Your task to perform on an android device: Search for the best websites on the internet Image 0: 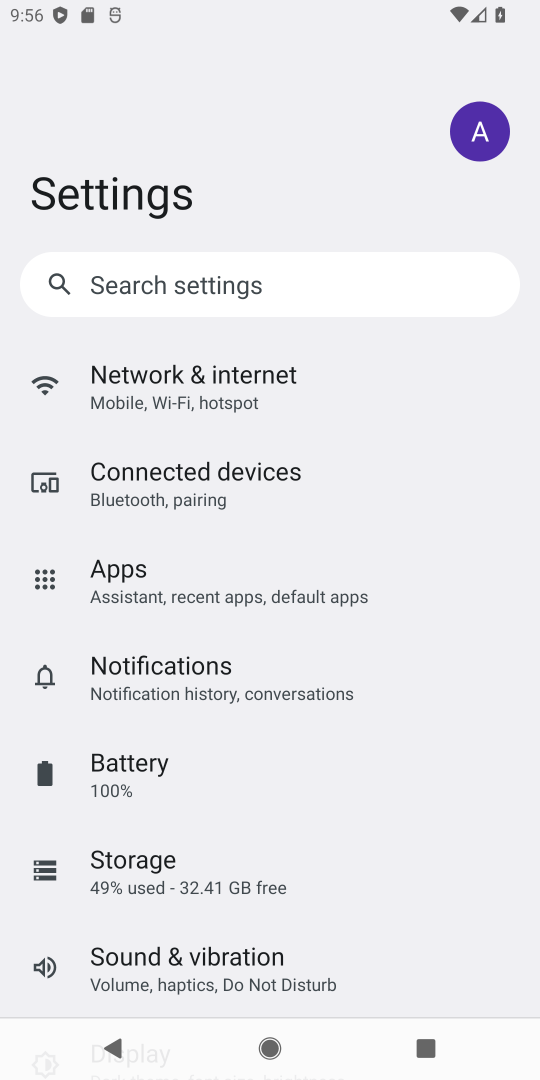
Step 0: press home button
Your task to perform on an android device: Search for the best websites on the internet Image 1: 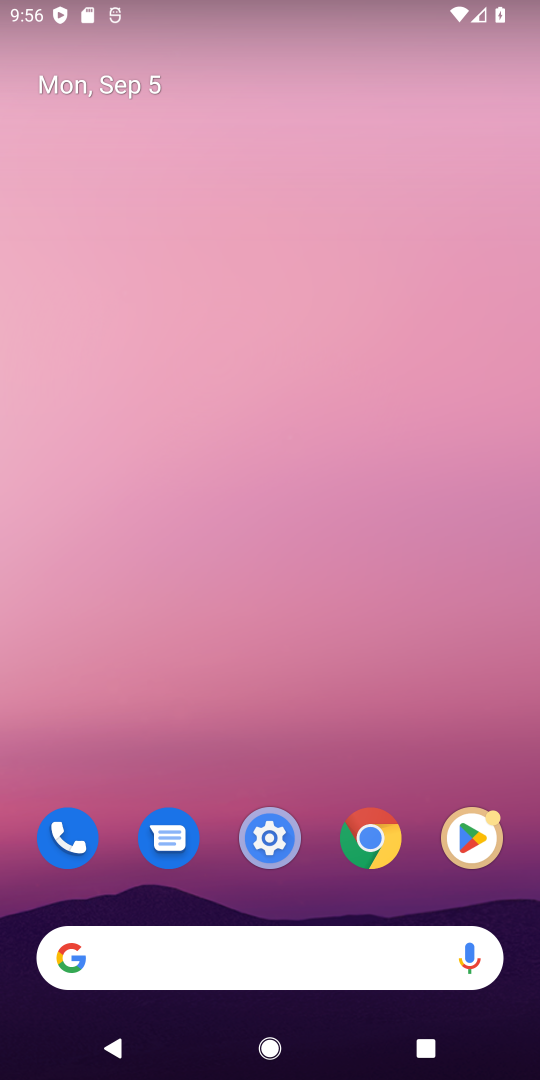
Step 1: click (278, 942)
Your task to perform on an android device: Search for the best websites on the internet Image 2: 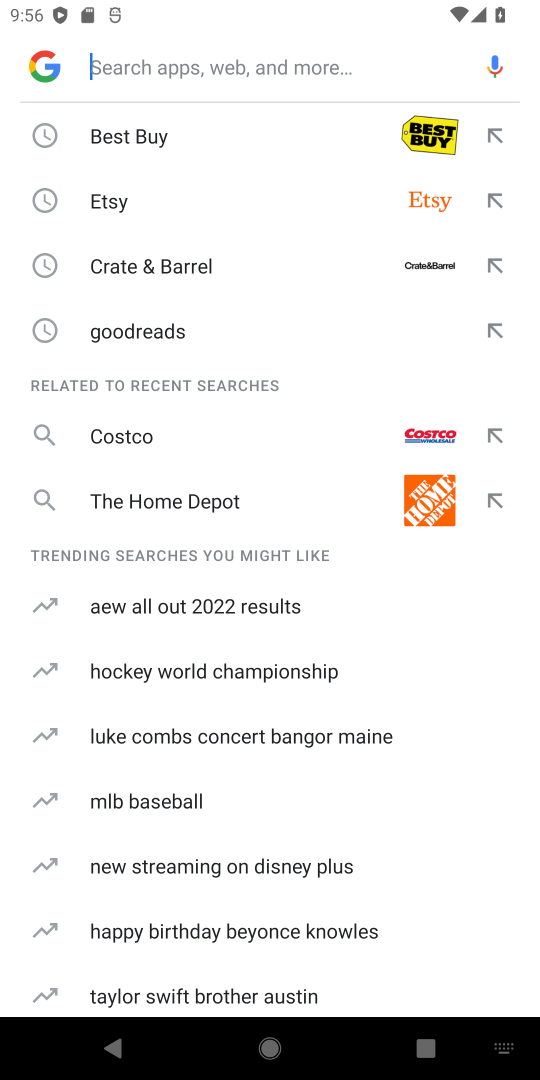
Step 2: type "best websites on the internet"
Your task to perform on an android device: Search for the best websites on the internet Image 3: 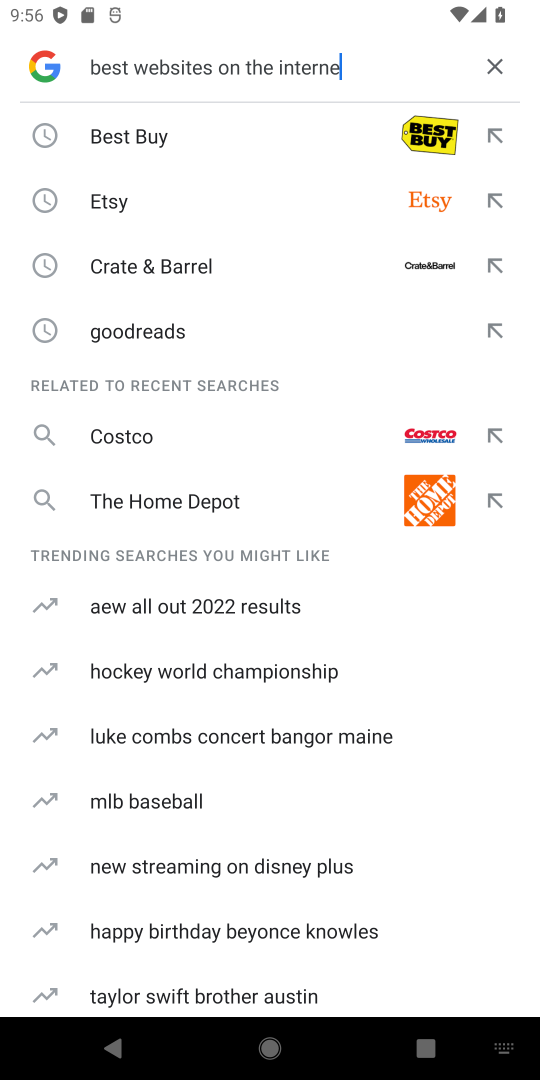
Step 3: type ""
Your task to perform on an android device: Search for the best websites on the internet Image 4: 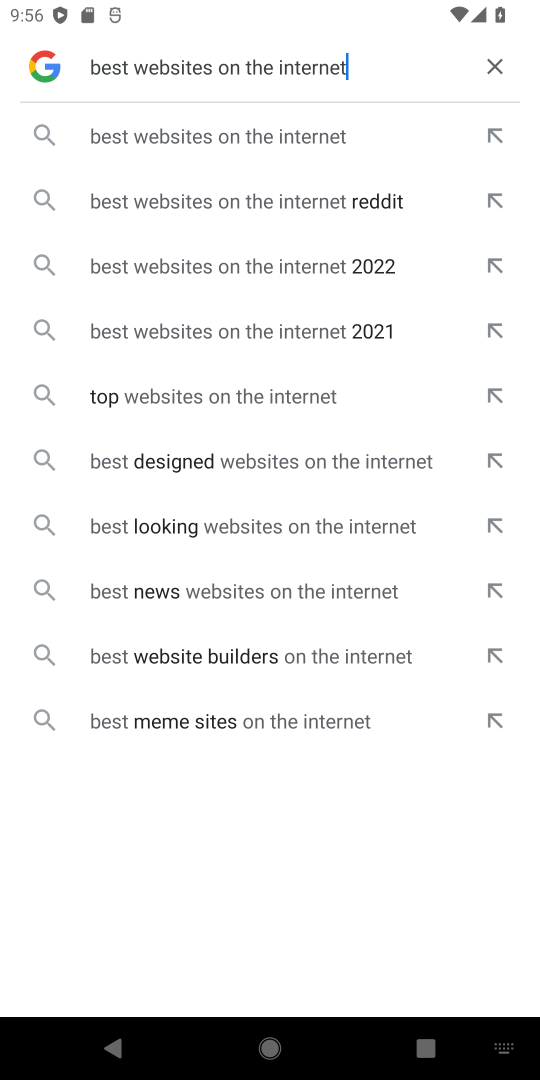
Step 4: click (204, 146)
Your task to perform on an android device: Search for the best websites on the internet Image 5: 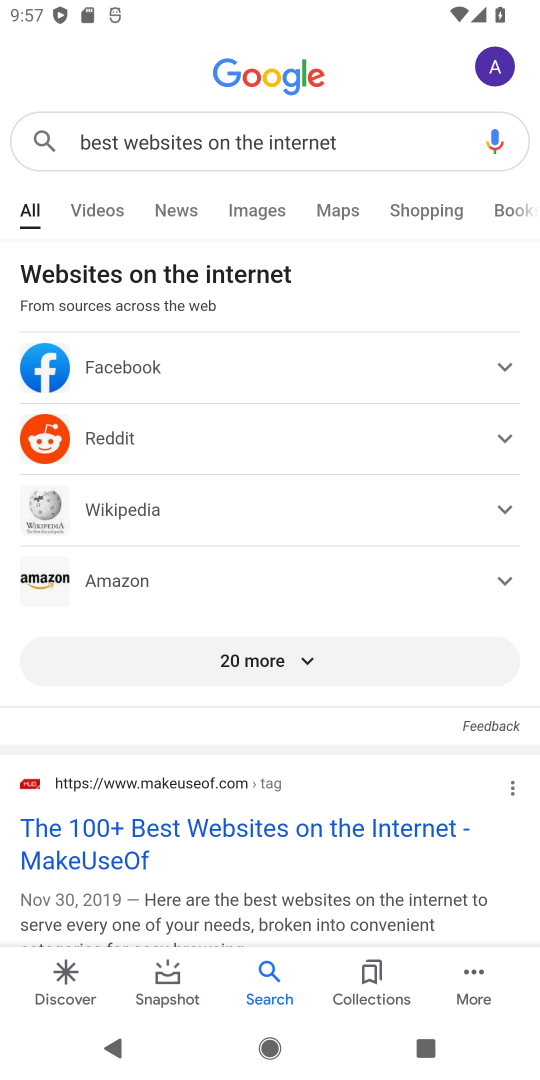
Step 5: drag from (215, 700) to (233, 626)
Your task to perform on an android device: Search for the best websites on the internet Image 6: 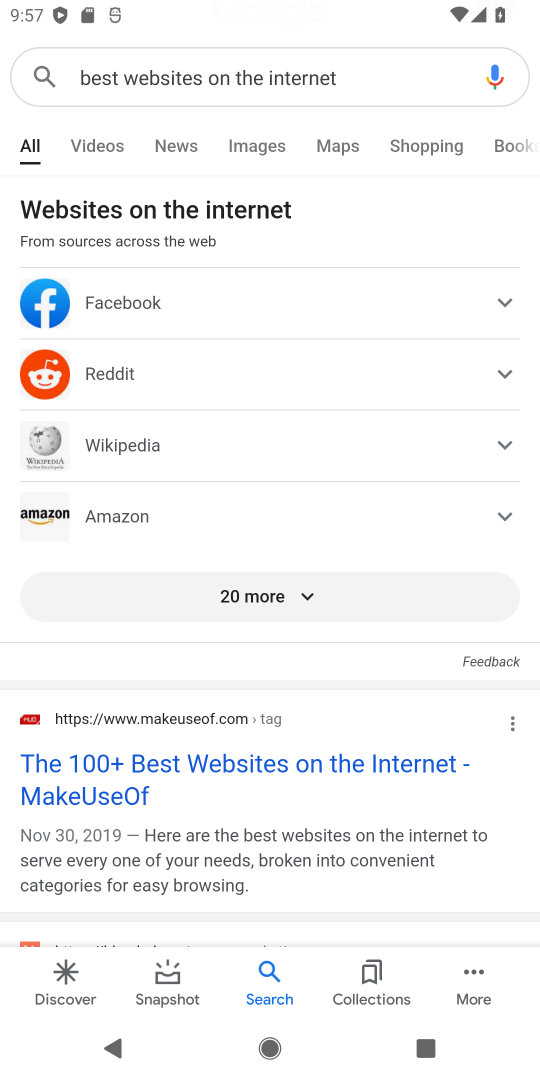
Step 6: click (179, 617)
Your task to perform on an android device: Search for the best websites on the internet Image 7: 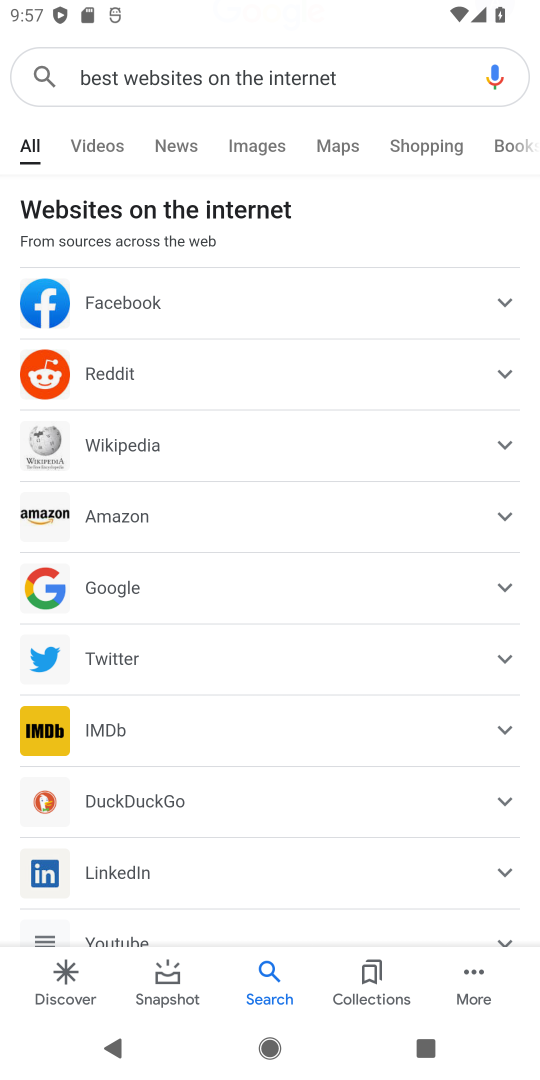
Step 7: task complete